Your task to perform on an android device: Go to Maps Image 0: 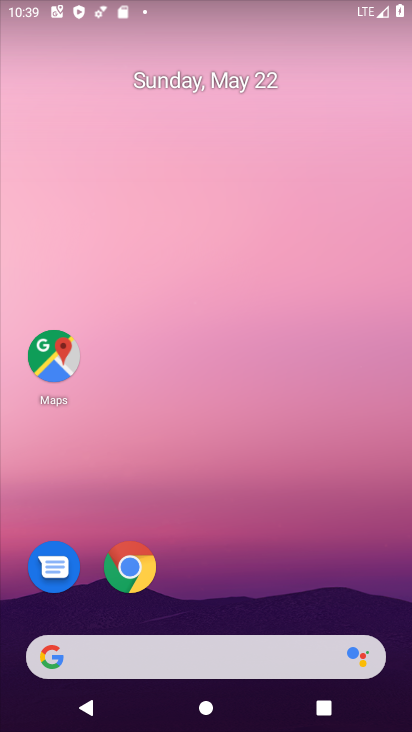
Step 0: drag from (249, 560) to (226, 4)
Your task to perform on an android device: Go to Maps Image 1: 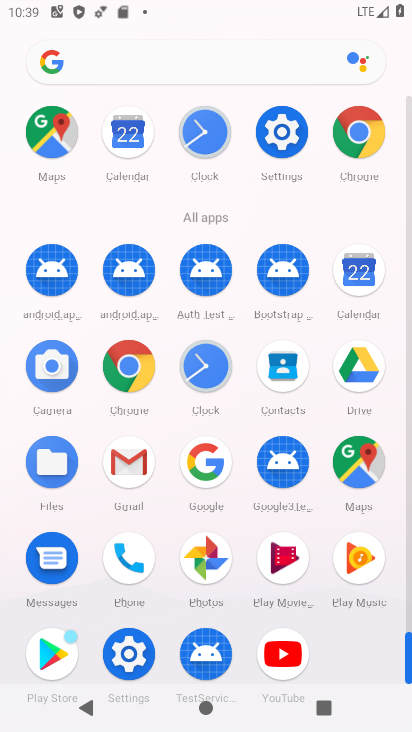
Step 1: click (49, 129)
Your task to perform on an android device: Go to Maps Image 2: 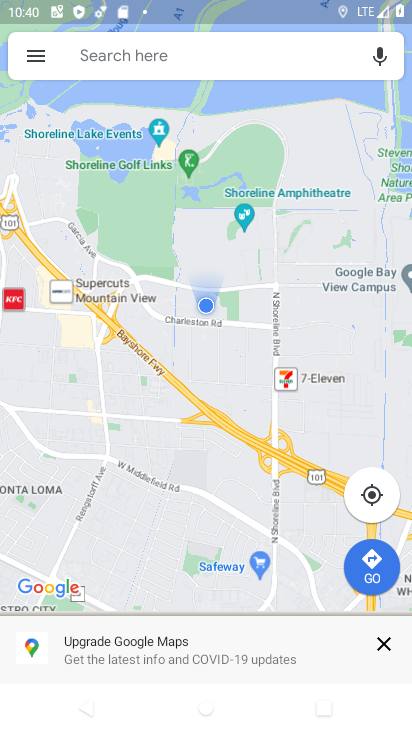
Step 2: task complete